Your task to perform on an android device: Open accessibility settings Image 0: 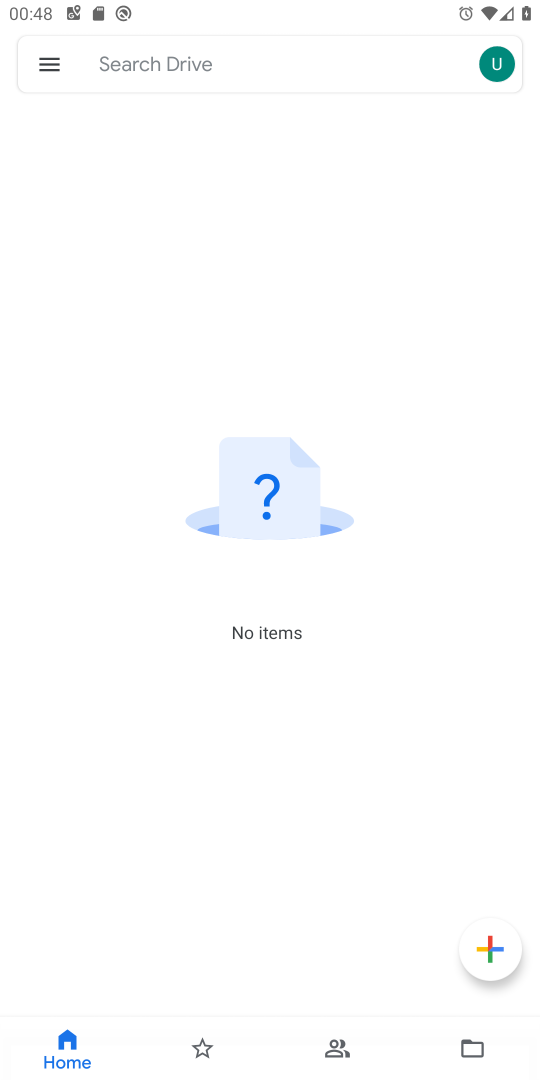
Step 0: press home button
Your task to perform on an android device: Open accessibility settings Image 1: 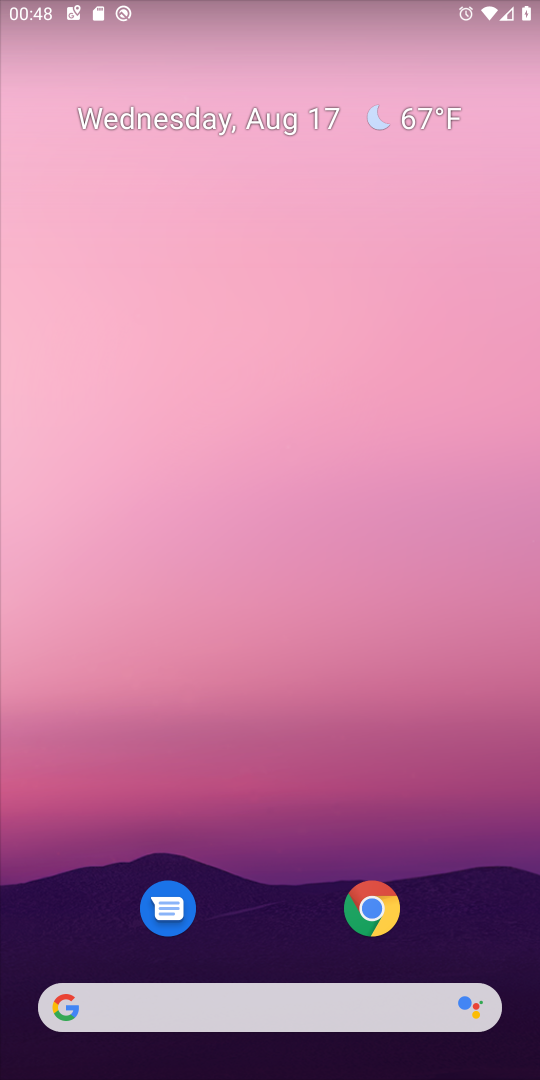
Step 1: drag from (244, 836) to (232, 381)
Your task to perform on an android device: Open accessibility settings Image 2: 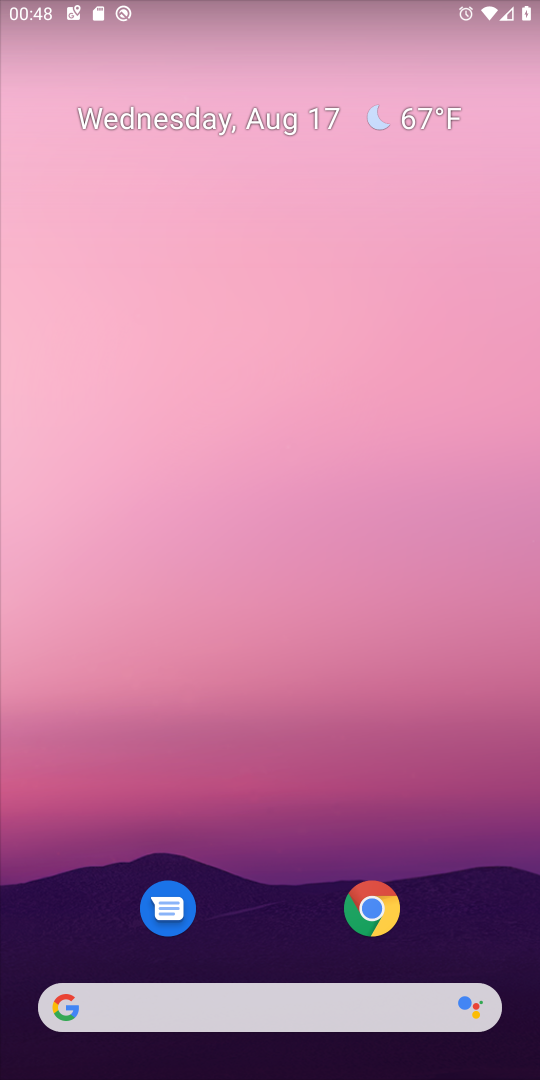
Step 2: drag from (261, 882) to (268, 319)
Your task to perform on an android device: Open accessibility settings Image 3: 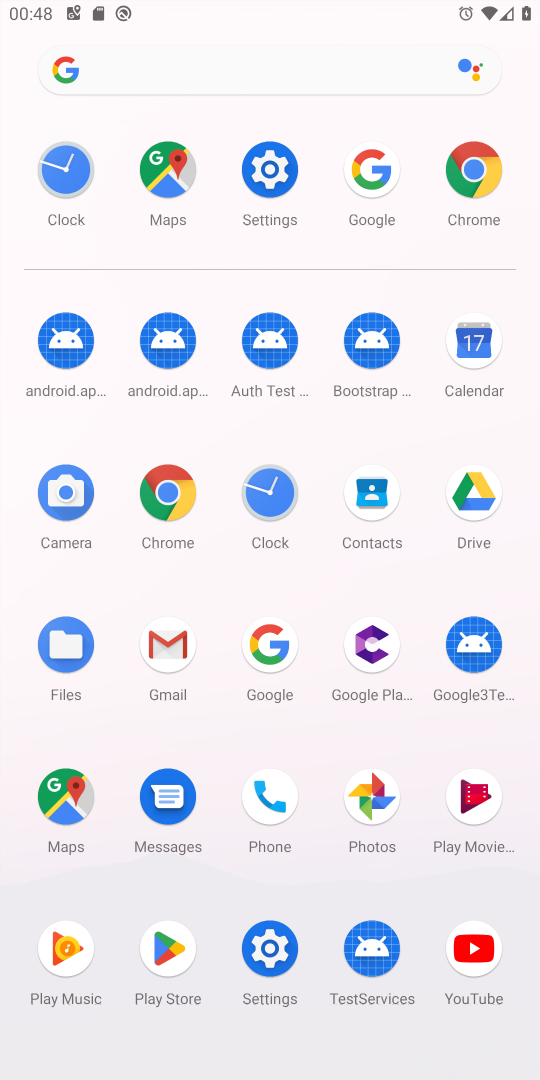
Step 3: click (276, 955)
Your task to perform on an android device: Open accessibility settings Image 4: 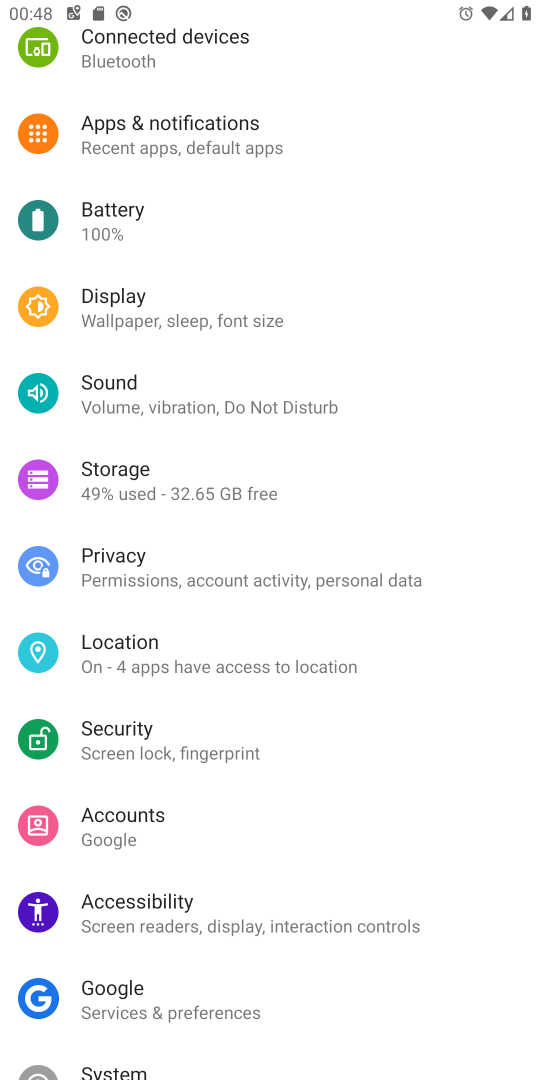
Step 4: click (234, 921)
Your task to perform on an android device: Open accessibility settings Image 5: 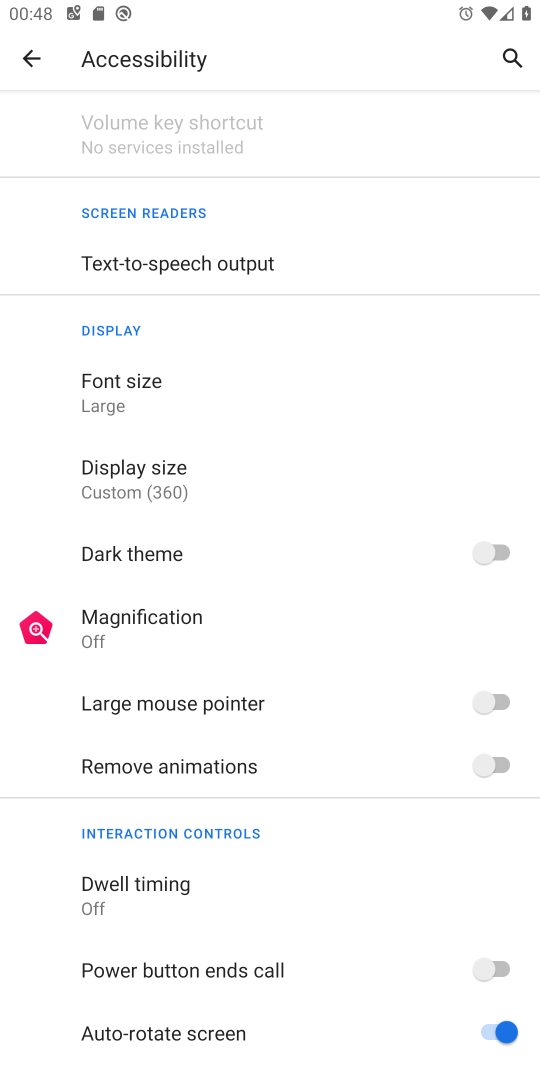
Step 5: task complete